Your task to perform on an android device: Open privacy settings Image 0: 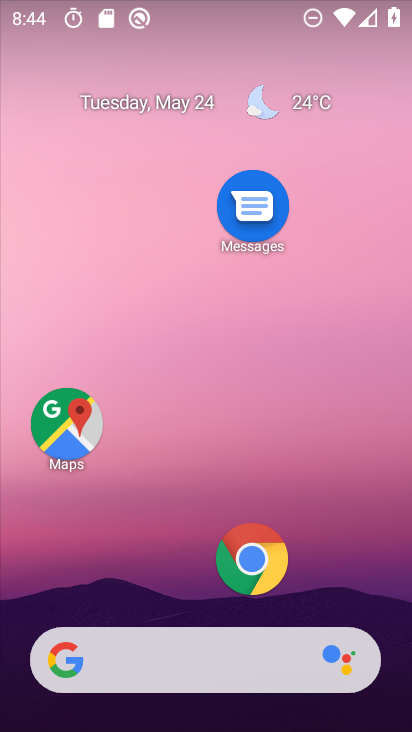
Step 0: drag from (205, 613) to (199, 257)
Your task to perform on an android device: Open privacy settings Image 1: 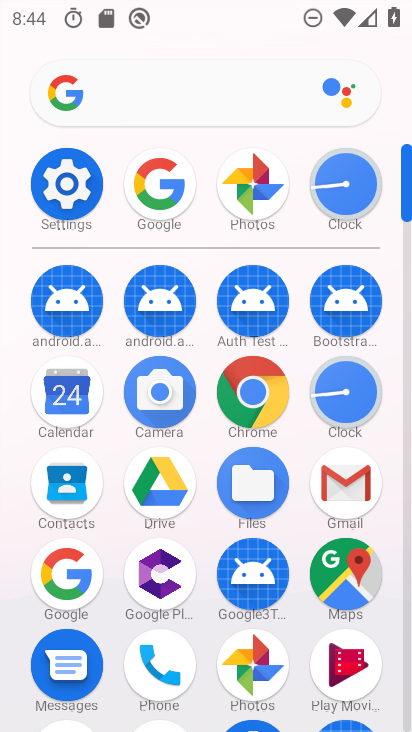
Step 1: click (56, 196)
Your task to perform on an android device: Open privacy settings Image 2: 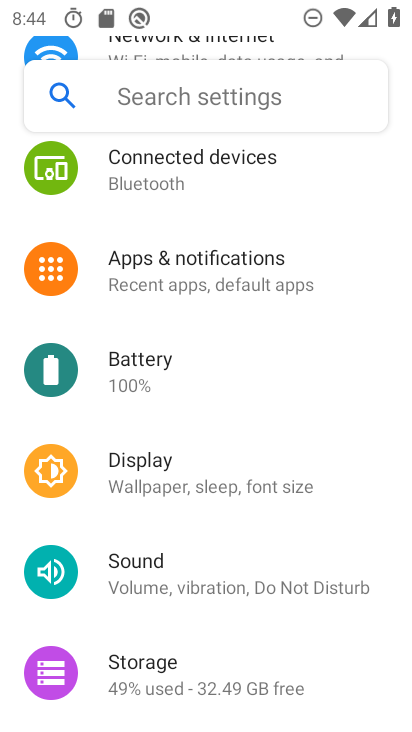
Step 2: drag from (175, 611) to (182, 380)
Your task to perform on an android device: Open privacy settings Image 3: 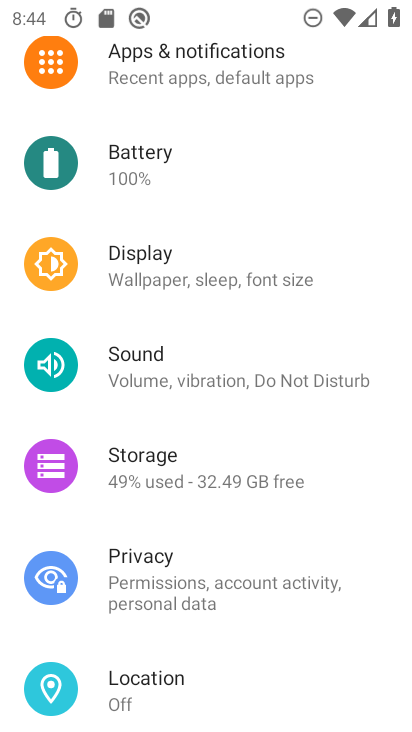
Step 3: click (182, 575)
Your task to perform on an android device: Open privacy settings Image 4: 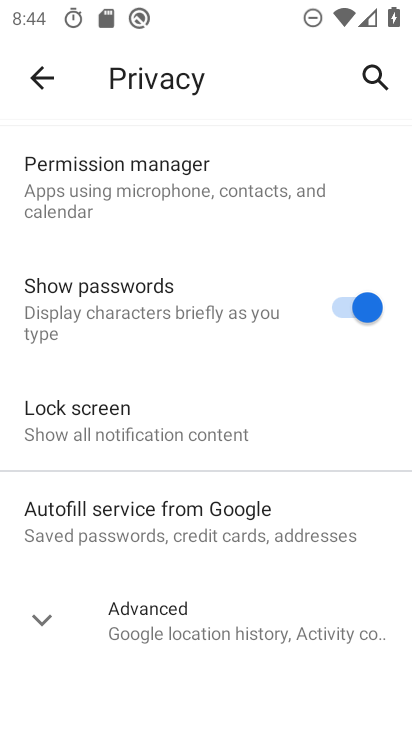
Step 4: task complete